Your task to perform on an android device: Open Yahoo.com Image 0: 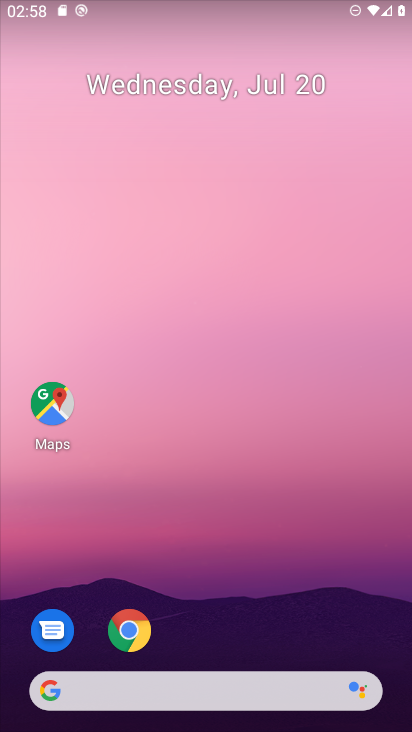
Step 0: drag from (322, 617) to (369, 146)
Your task to perform on an android device: Open Yahoo.com Image 1: 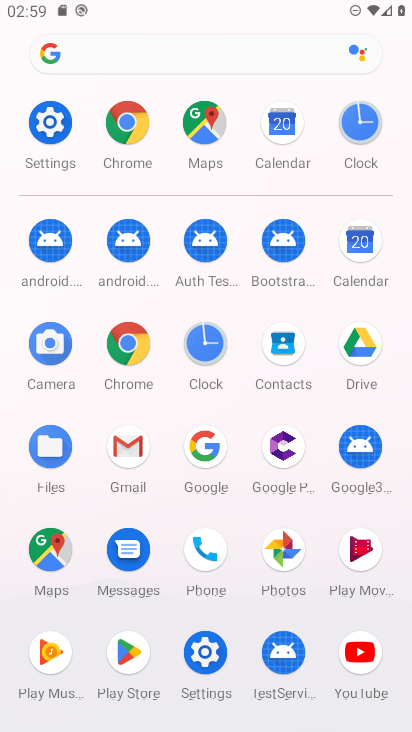
Step 1: click (127, 349)
Your task to perform on an android device: Open Yahoo.com Image 2: 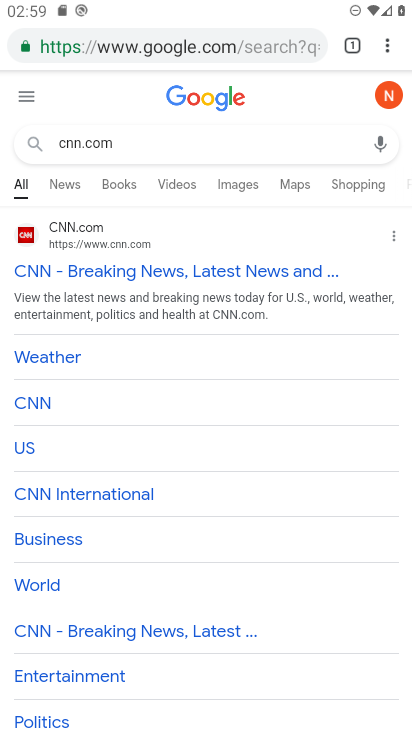
Step 2: click (243, 44)
Your task to perform on an android device: Open Yahoo.com Image 3: 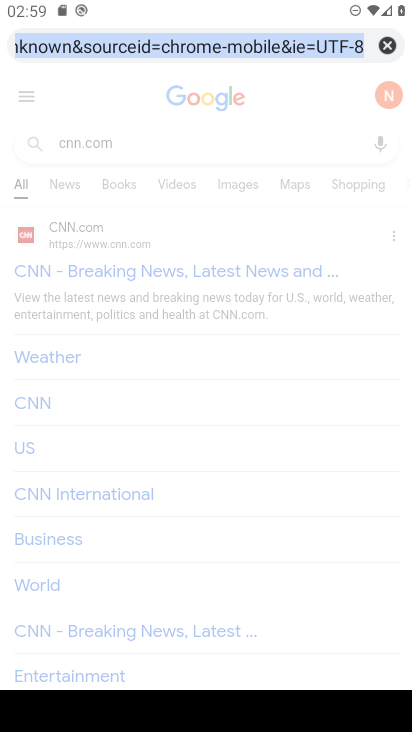
Step 3: type "yahoo.com"
Your task to perform on an android device: Open Yahoo.com Image 4: 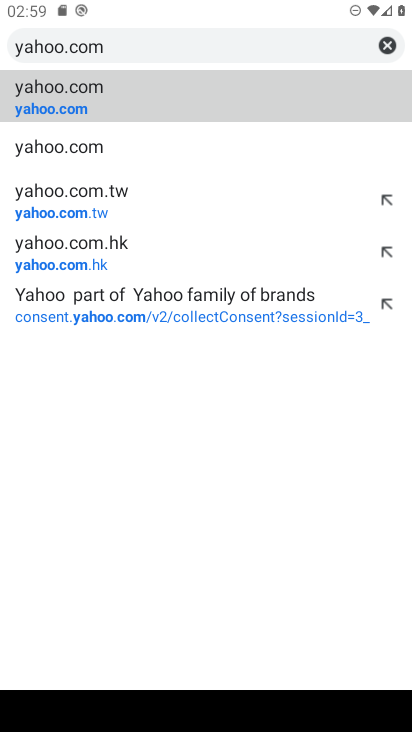
Step 4: click (270, 103)
Your task to perform on an android device: Open Yahoo.com Image 5: 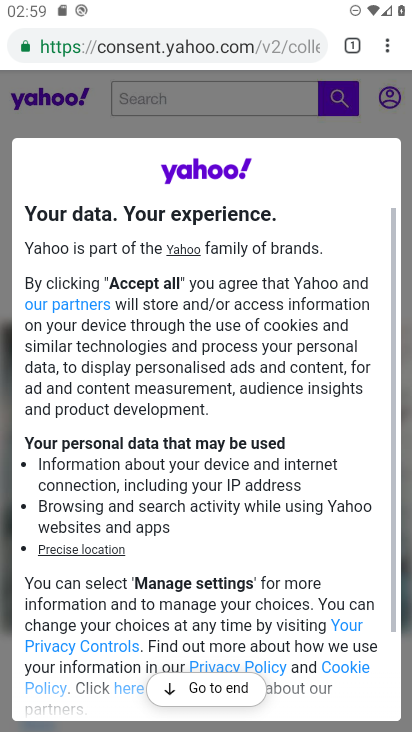
Step 5: task complete